Your task to perform on an android device: Open the calendar and show me this week's events? Image 0: 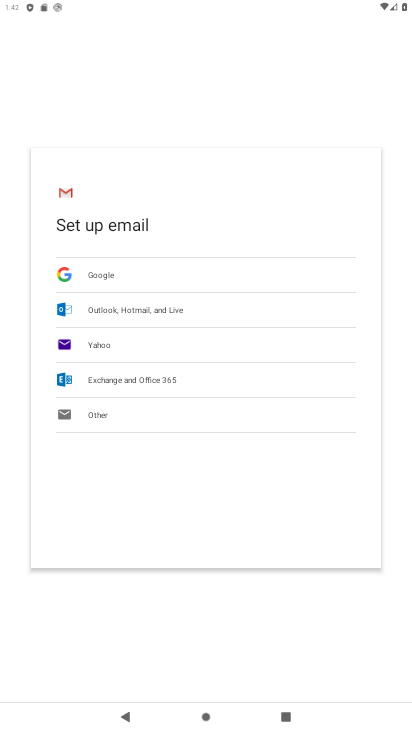
Step 0: press home button
Your task to perform on an android device: Open the calendar and show me this week's events? Image 1: 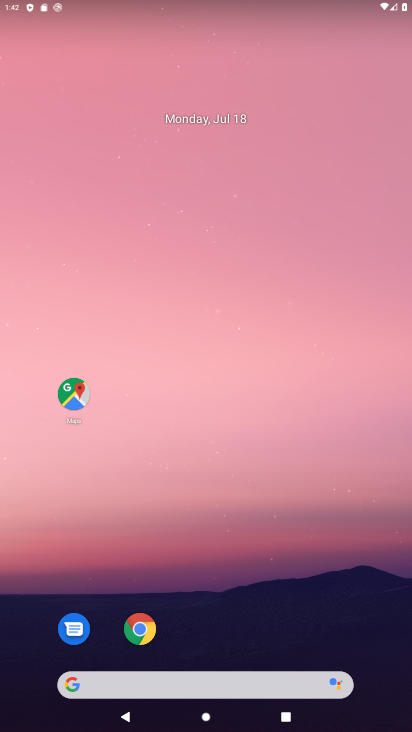
Step 1: drag from (227, 617) to (286, 134)
Your task to perform on an android device: Open the calendar and show me this week's events? Image 2: 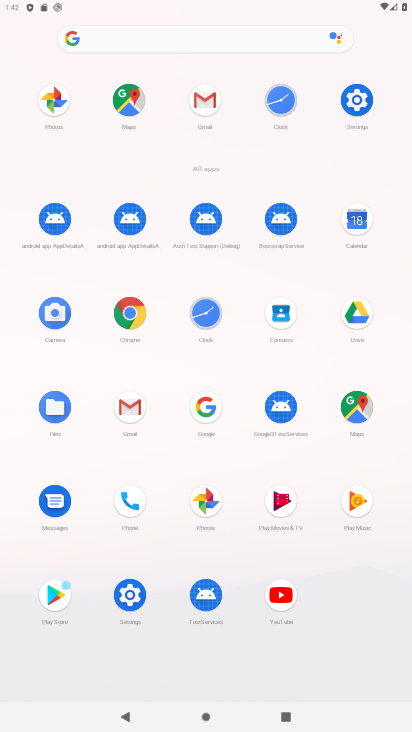
Step 2: click (355, 241)
Your task to perform on an android device: Open the calendar and show me this week's events? Image 3: 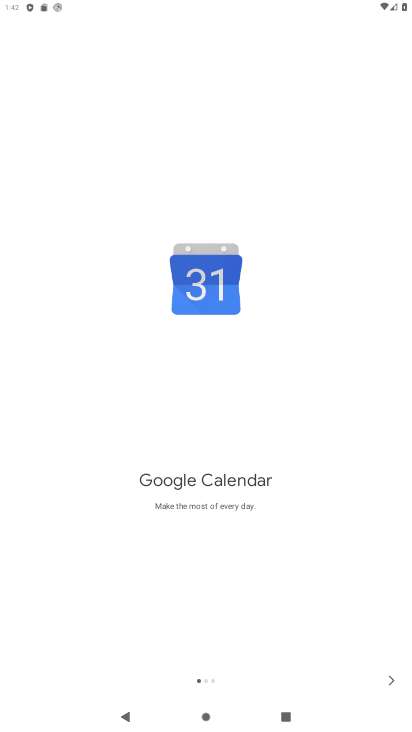
Step 3: click (390, 681)
Your task to perform on an android device: Open the calendar and show me this week's events? Image 4: 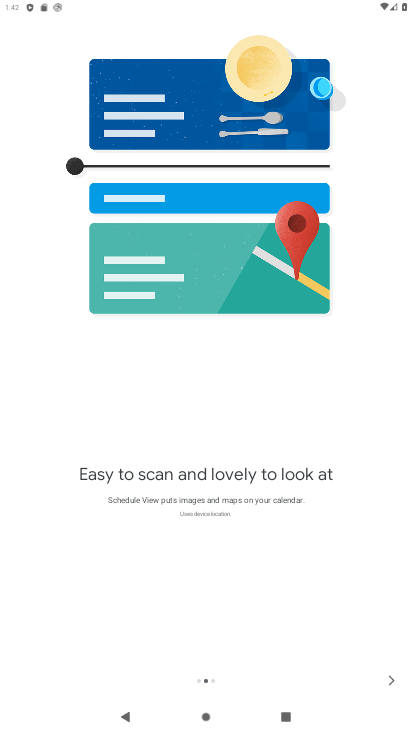
Step 4: click (390, 681)
Your task to perform on an android device: Open the calendar and show me this week's events? Image 5: 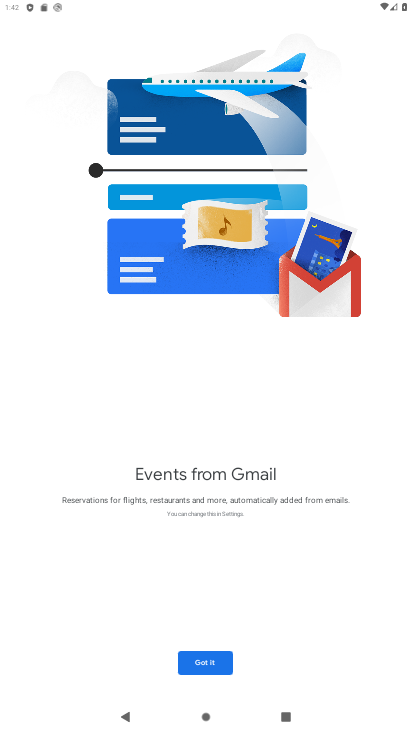
Step 5: click (208, 667)
Your task to perform on an android device: Open the calendar and show me this week's events? Image 6: 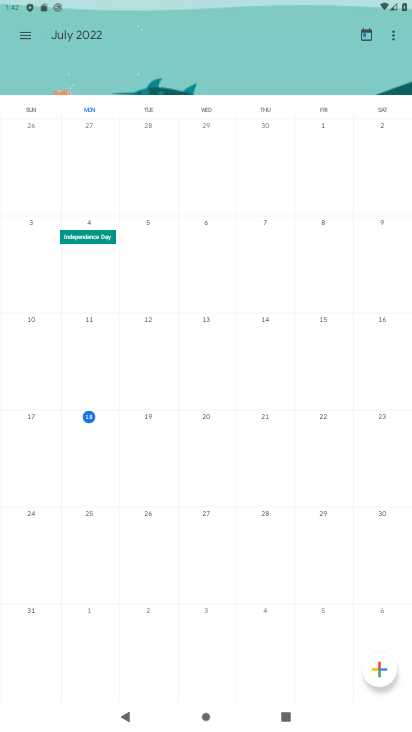
Step 6: click (202, 448)
Your task to perform on an android device: Open the calendar and show me this week's events? Image 7: 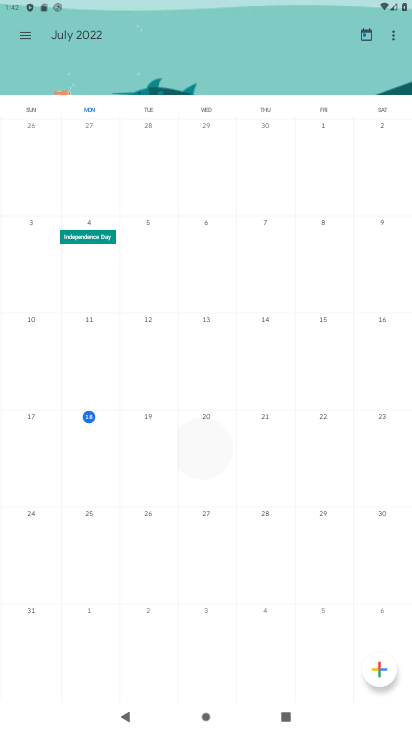
Step 7: task complete